Your task to perform on an android device: What is the recent news? Image 0: 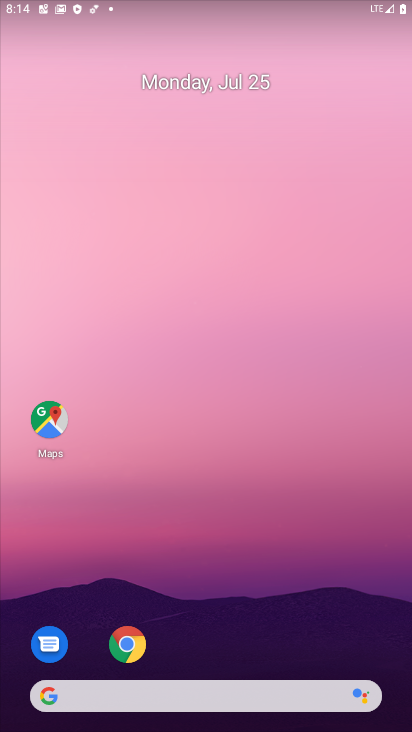
Step 0: drag from (247, 633) to (283, 174)
Your task to perform on an android device: What is the recent news? Image 1: 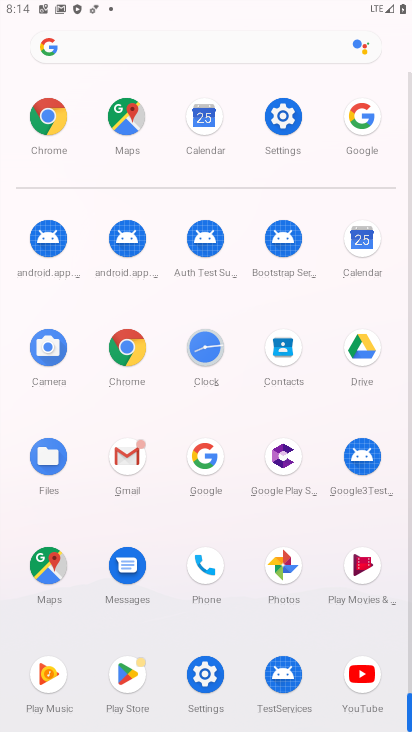
Step 1: click (217, 473)
Your task to perform on an android device: What is the recent news? Image 2: 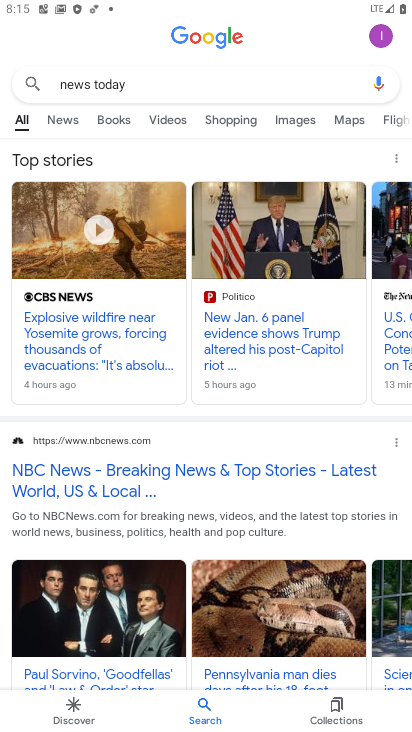
Step 2: task complete